Your task to perform on an android device: see creations saved in the google photos Image 0: 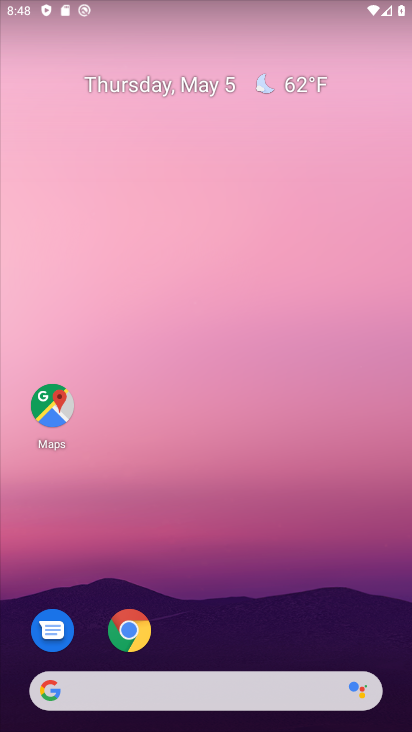
Step 0: drag from (207, 650) to (206, 3)
Your task to perform on an android device: see creations saved in the google photos Image 1: 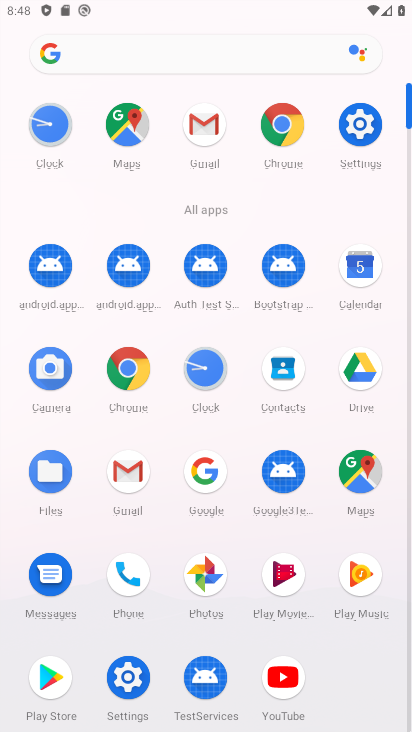
Step 1: click (203, 567)
Your task to perform on an android device: see creations saved in the google photos Image 2: 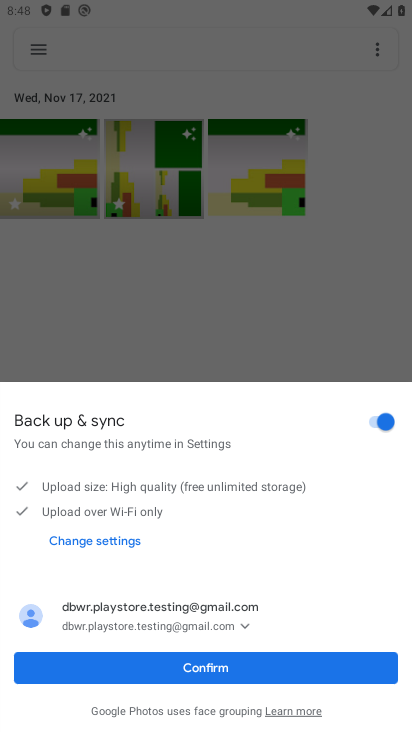
Step 2: click (215, 675)
Your task to perform on an android device: see creations saved in the google photos Image 3: 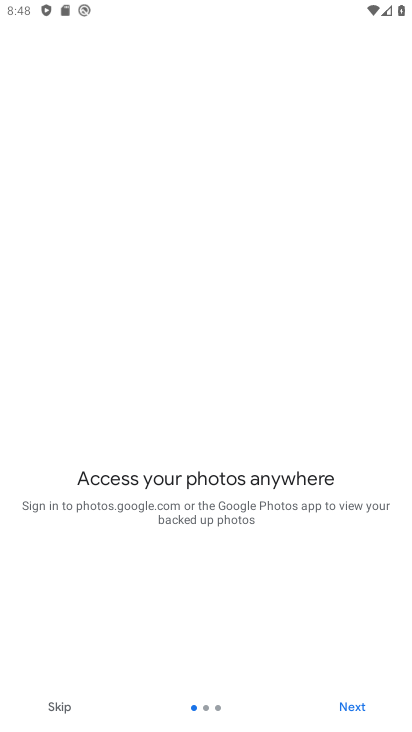
Step 3: click (345, 707)
Your task to perform on an android device: see creations saved in the google photos Image 4: 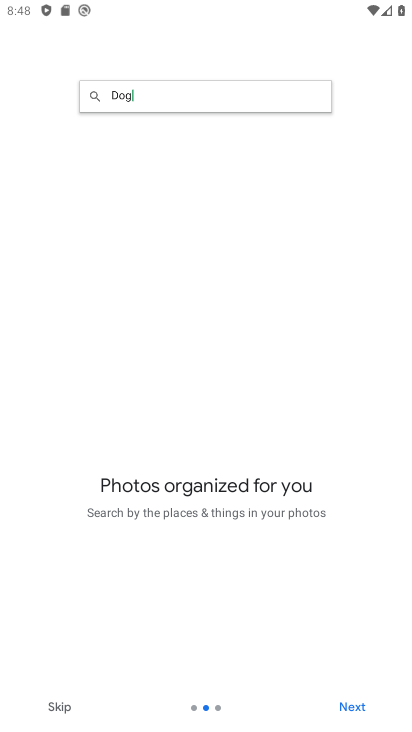
Step 4: click (353, 708)
Your task to perform on an android device: see creations saved in the google photos Image 5: 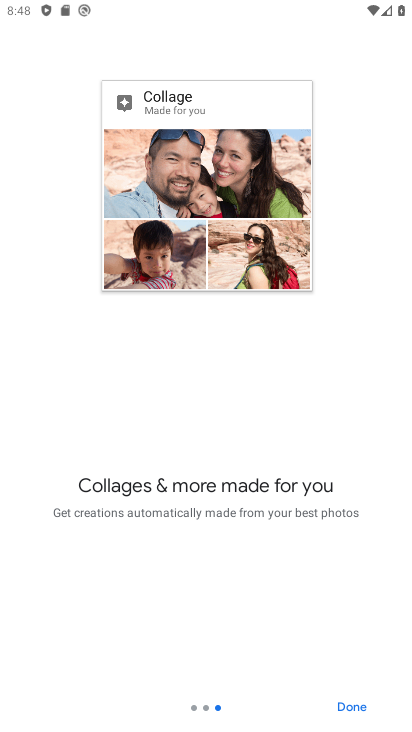
Step 5: click (350, 704)
Your task to perform on an android device: see creations saved in the google photos Image 6: 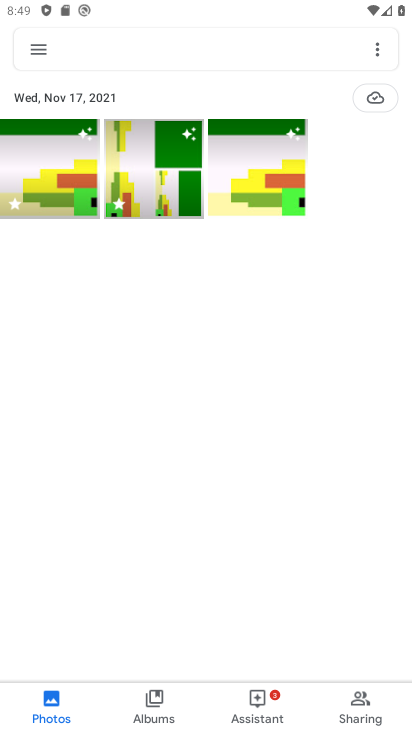
Step 6: click (91, 47)
Your task to perform on an android device: see creations saved in the google photos Image 7: 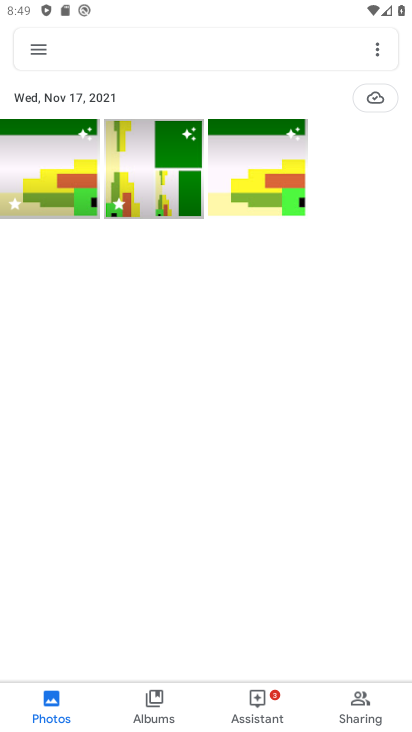
Step 7: click (111, 33)
Your task to perform on an android device: see creations saved in the google photos Image 8: 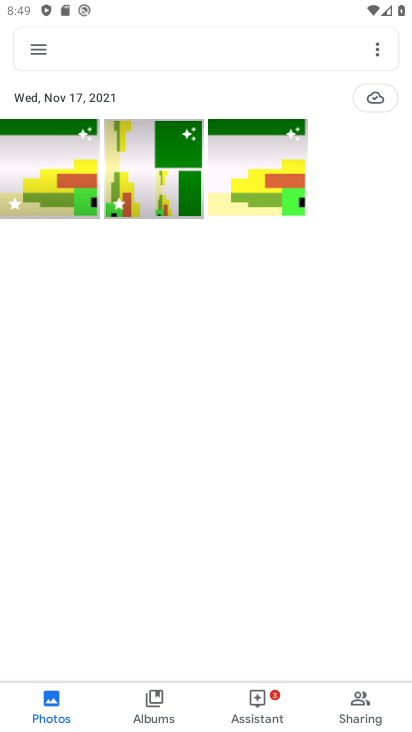
Step 8: click (141, 50)
Your task to perform on an android device: see creations saved in the google photos Image 9: 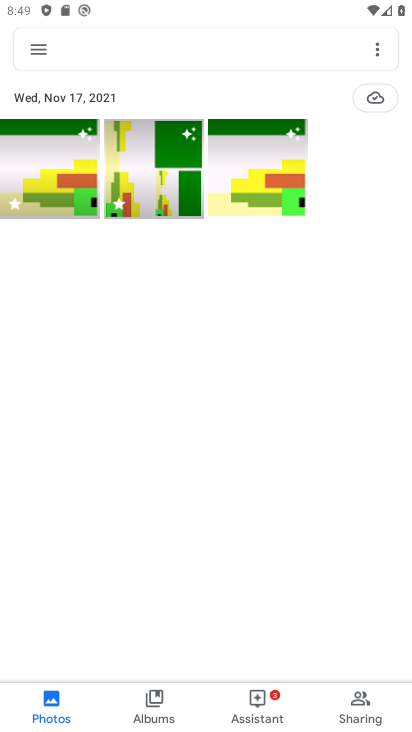
Step 9: click (93, 39)
Your task to perform on an android device: see creations saved in the google photos Image 10: 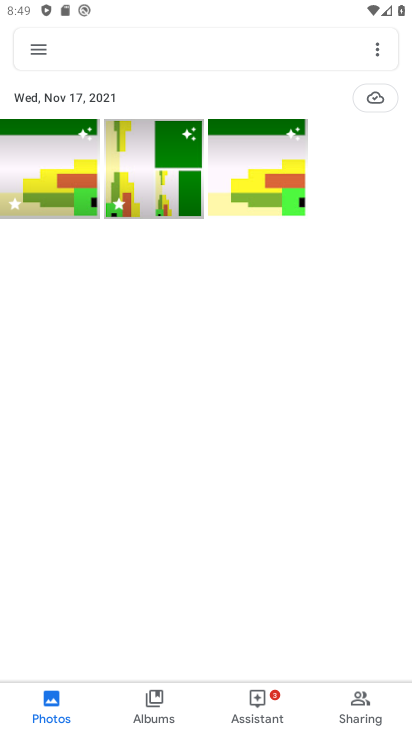
Step 10: click (94, 39)
Your task to perform on an android device: see creations saved in the google photos Image 11: 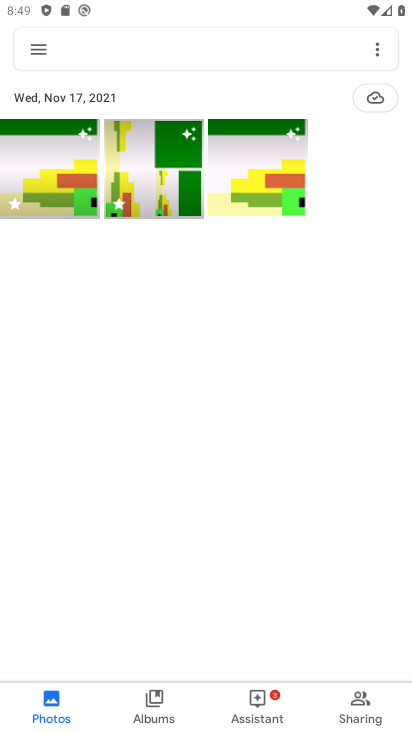
Step 11: click (158, 686)
Your task to perform on an android device: see creations saved in the google photos Image 12: 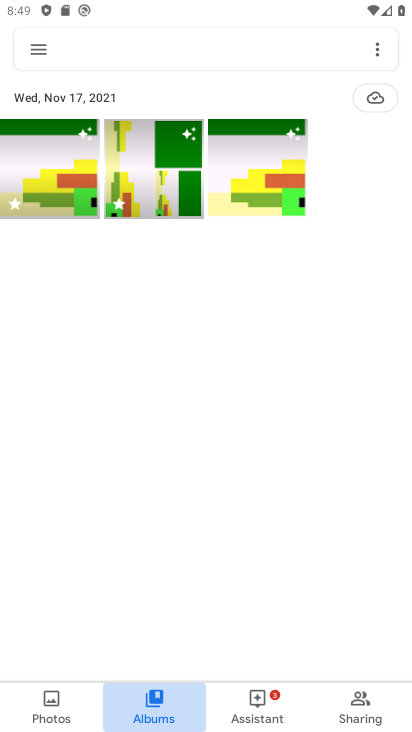
Step 12: click (159, 712)
Your task to perform on an android device: see creations saved in the google photos Image 13: 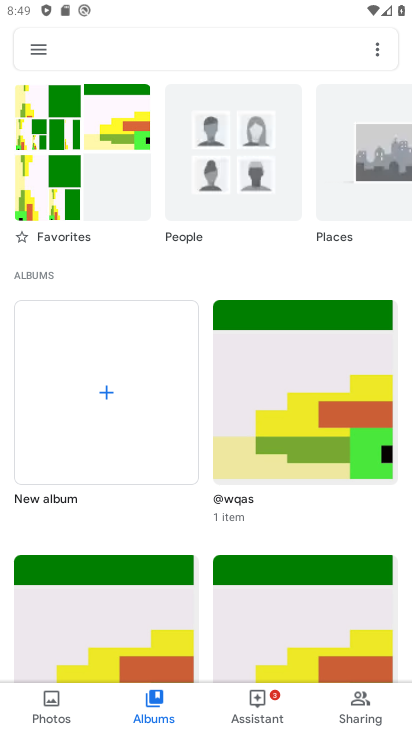
Step 13: click (110, 49)
Your task to perform on an android device: see creations saved in the google photos Image 14: 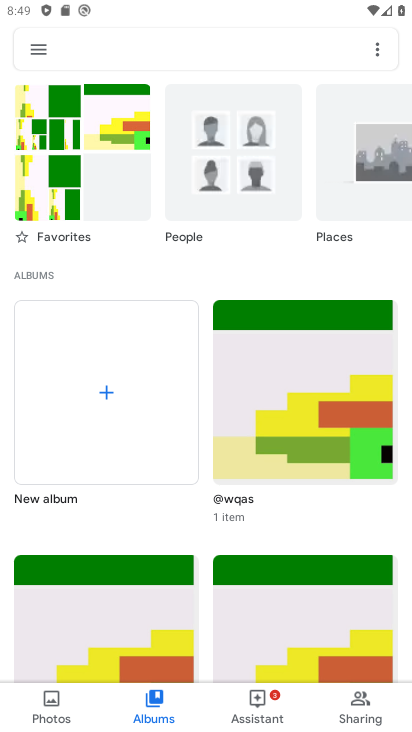
Step 14: click (35, 45)
Your task to perform on an android device: see creations saved in the google photos Image 15: 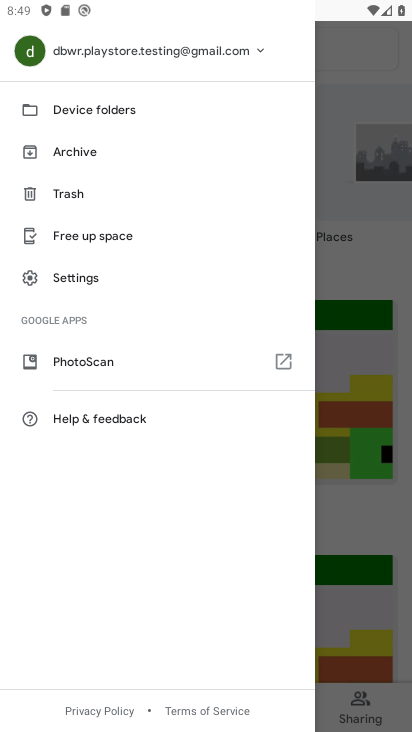
Step 15: click (354, 363)
Your task to perform on an android device: see creations saved in the google photos Image 16: 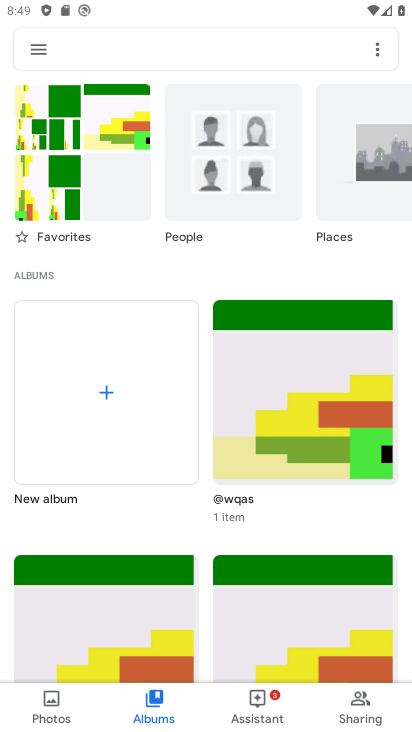
Step 16: drag from (153, 536) to (145, 55)
Your task to perform on an android device: see creations saved in the google photos Image 17: 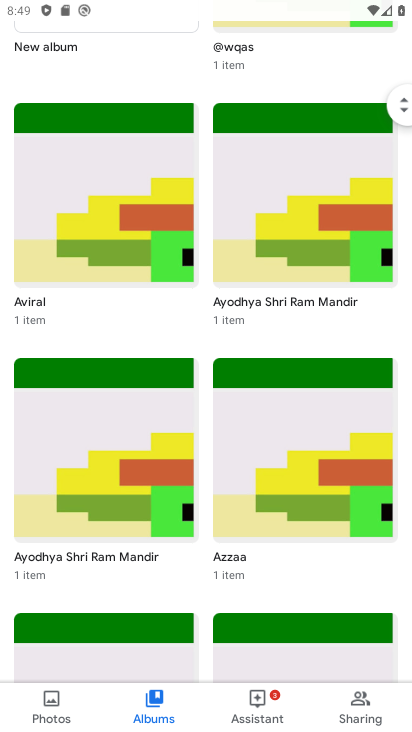
Step 17: drag from (170, 598) to (184, 9)
Your task to perform on an android device: see creations saved in the google photos Image 18: 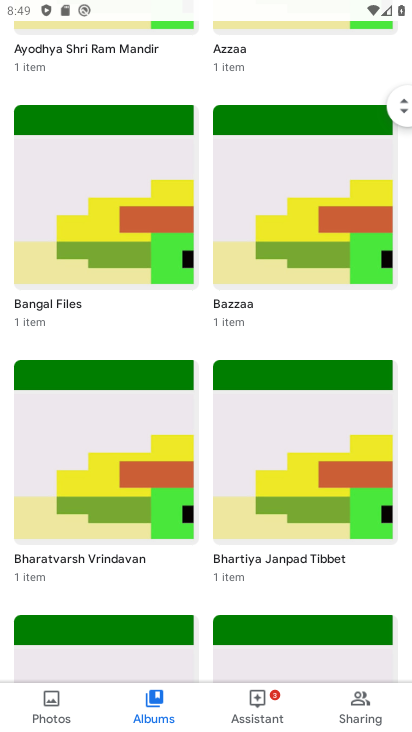
Step 18: drag from (183, 584) to (213, 4)
Your task to perform on an android device: see creations saved in the google photos Image 19: 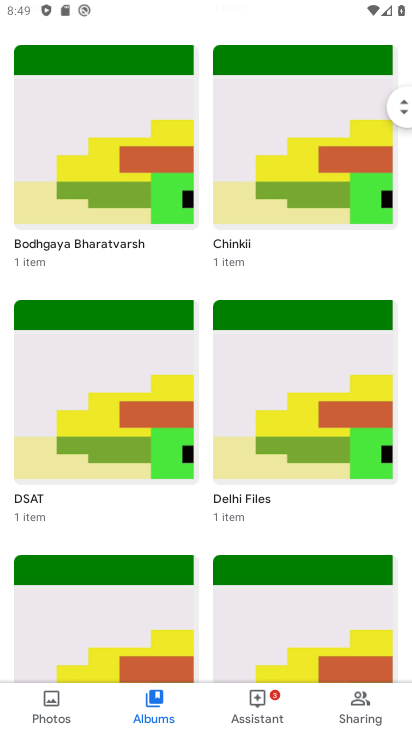
Step 19: drag from (195, 568) to (202, 5)
Your task to perform on an android device: see creations saved in the google photos Image 20: 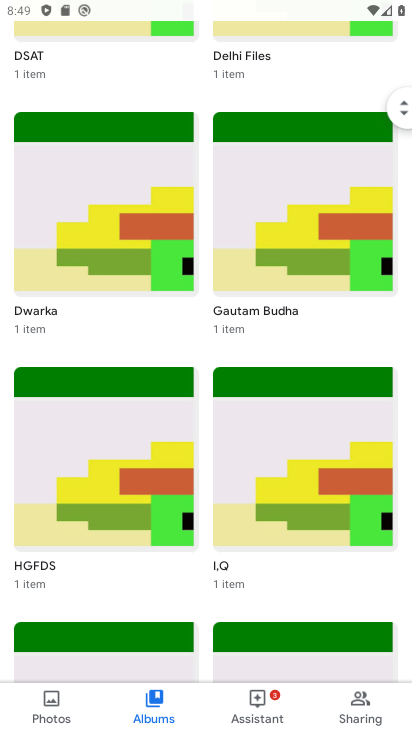
Step 20: drag from (202, 615) to (206, 185)
Your task to perform on an android device: see creations saved in the google photos Image 21: 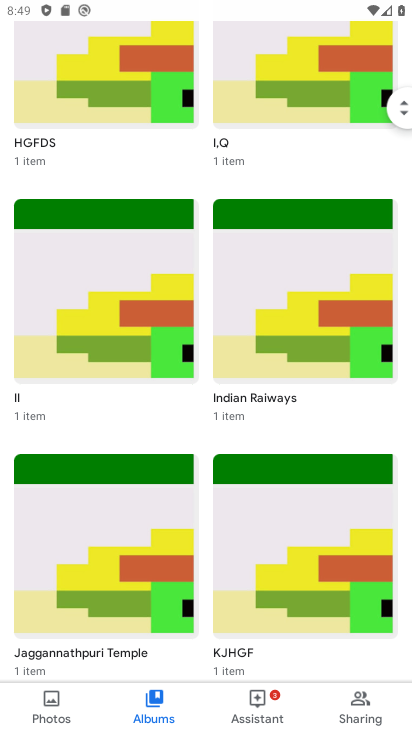
Step 21: drag from (211, 598) to (207, 67)
Your task to perform on an android device: see creations saved in the google photos Image 22: 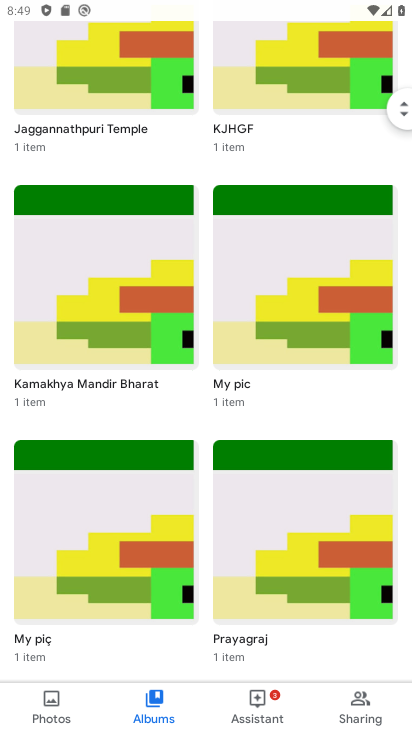
Step 22: click (254, 716)
Your task to perform on an android device: see creations saved in the google photos Image 23: 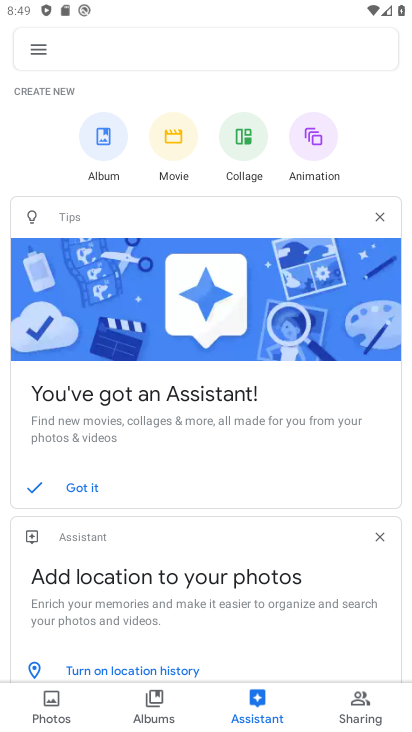
Step 23: drag from (211, 534) to (198, 69)
Your task to perform on an android device: see creations saved in the google photos Image 24: 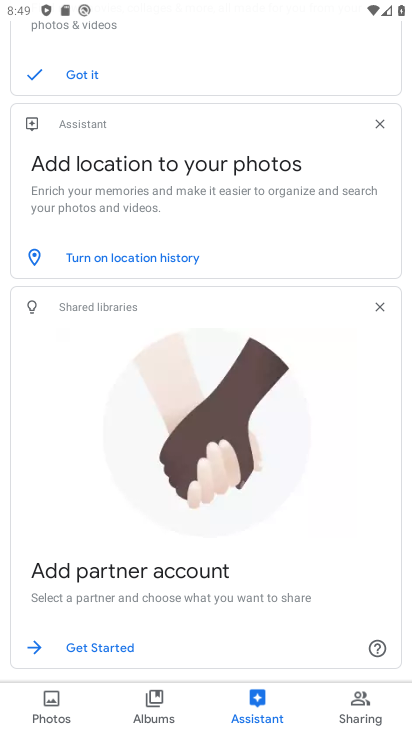
Step 24: drag from (151, 527) to (182, 0)
Your task to perform on an android device: see creations saved in the google photos Image 25: 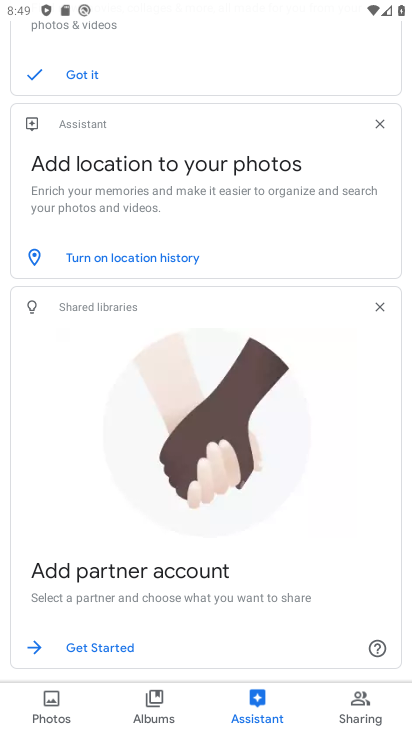
Step 25: drag from (167, 204) to (218, 610)
Your task to perform on an android device: see creations saved in the google photos Image 26: 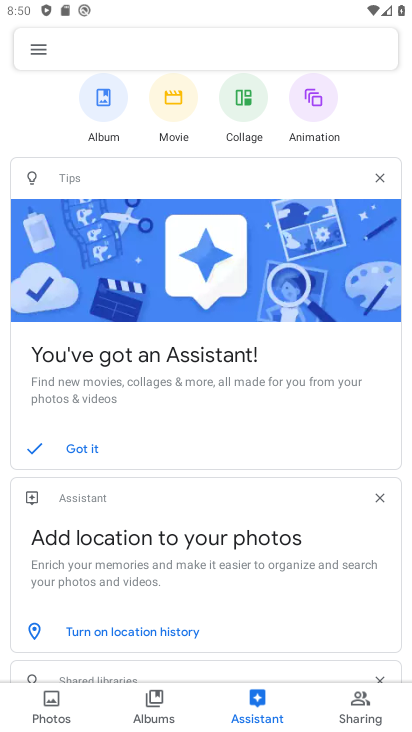
Step 26: drag from (110, 208) to (190, 616)
Your task to perform on an android device: see creations saved in the google photos Image 27: 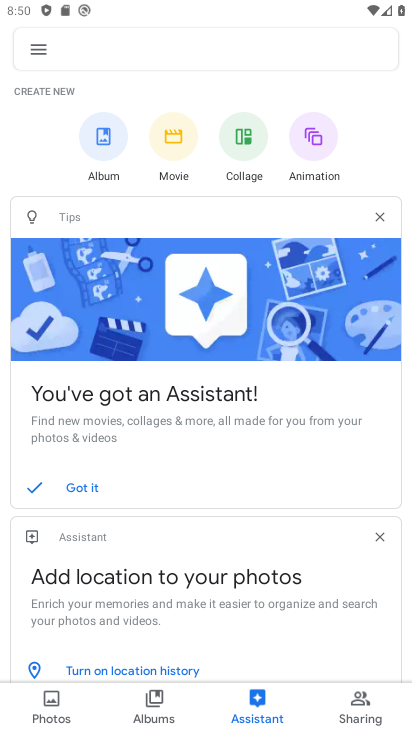
Step 27: click (95, 47)
Your task to perform on an android device: see creations saved in the google photos Image 28: 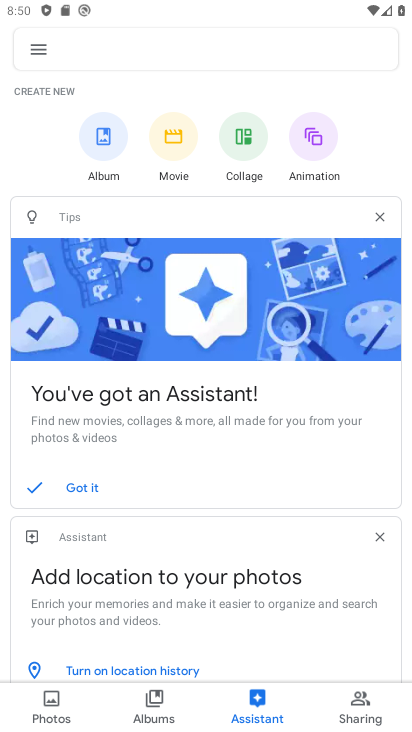
Step 28: click (353, 699)
Your task to perform on an android device: see creations saved in the google photos Image 29: 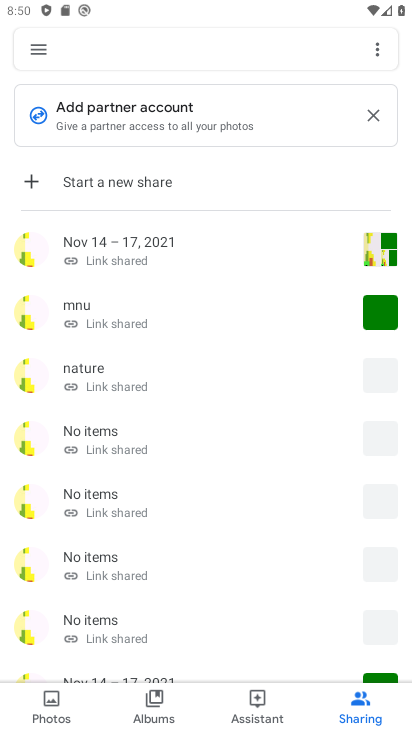
Step 29: click (148, 114)
Your task to perform on an android device: see creations saved in the google photos Image 30: 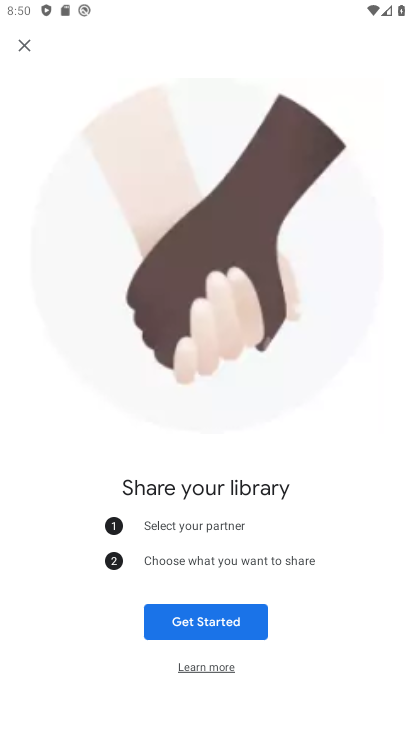
Step 30: click (23, 42)
Your task to perform on an android device: see creations saved in the google photos Image 31: 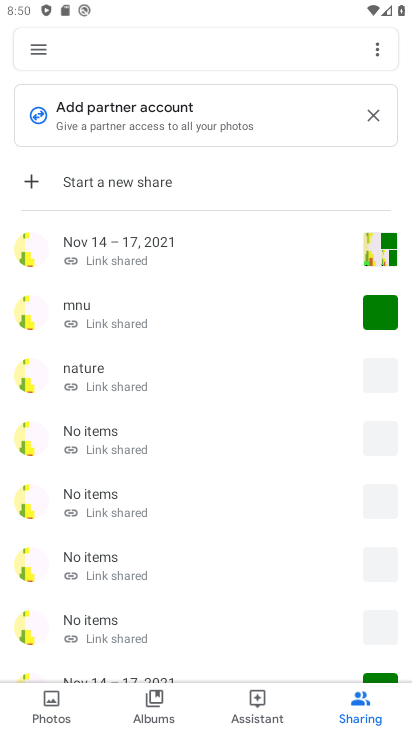
Step 31: click (117, 42)
Your task to perform on an android device: see creations saved in the google photos Image 32: 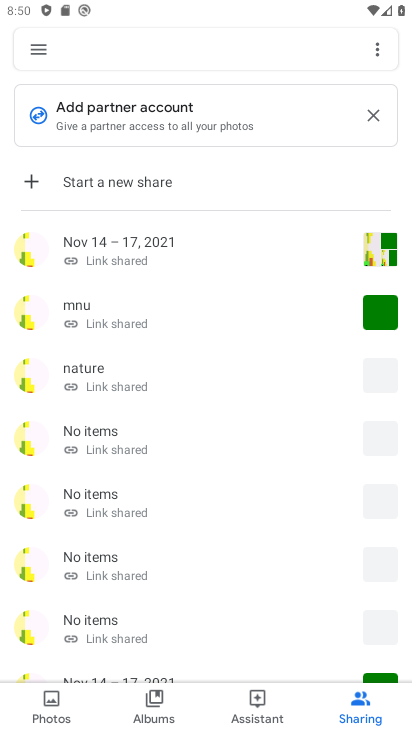
Step 32: click (140, 51)
Your task to perform on an android device: see creations saved in the google photos Image 33: 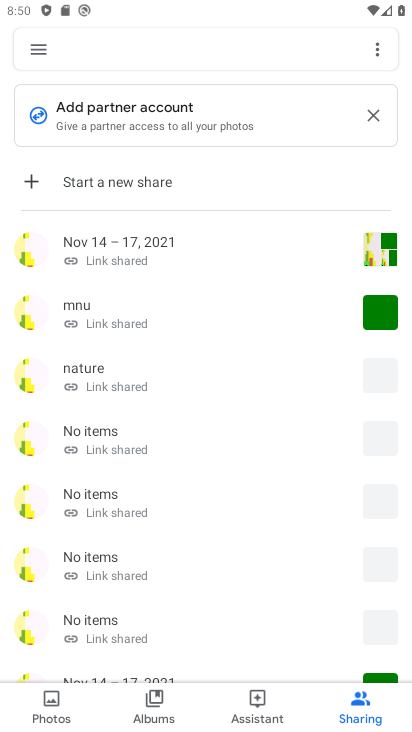
Step 33: drag from (138, 641) to (132, 46)
Your task to perform on an android device: see creations saved in the google photos Image 34: 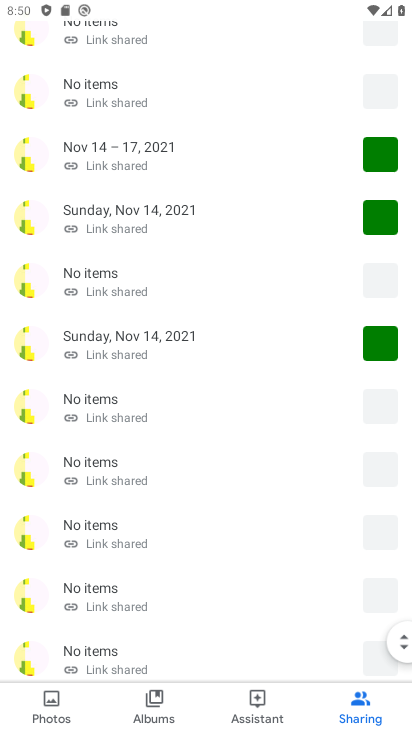
Step 34: drag from (168, 625) to (198, 2)
Your task to perform on an android device: see creations saved in the google photos Image 35: 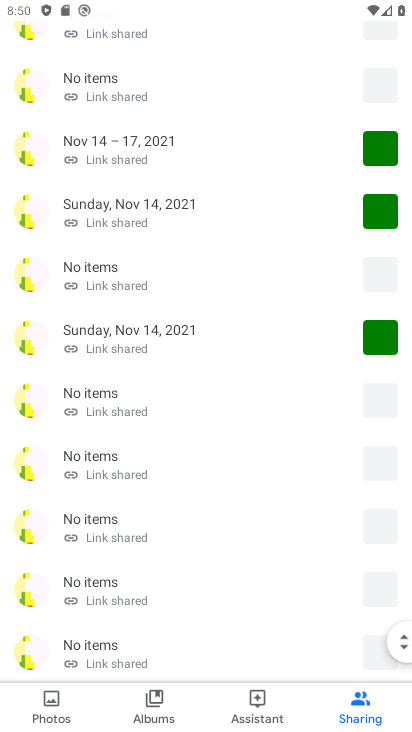
Step 35: click (147, 712)
Your task to perform on an android device: see creations saved in the google photos Image 36: 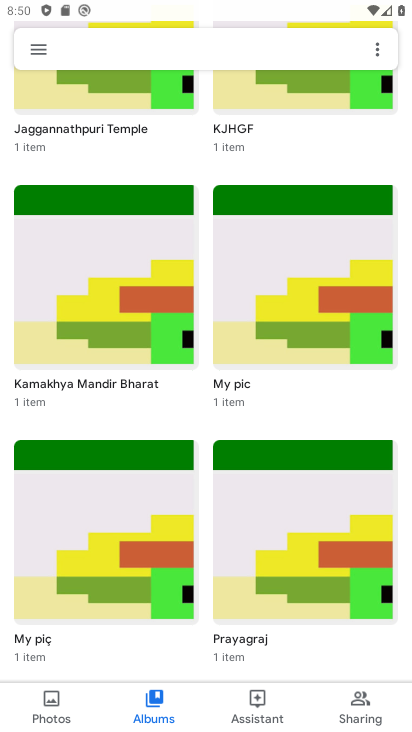
Step 36: click (56, 707)
Your task to perform on an android device: see creations saved in the google photos Image 37: 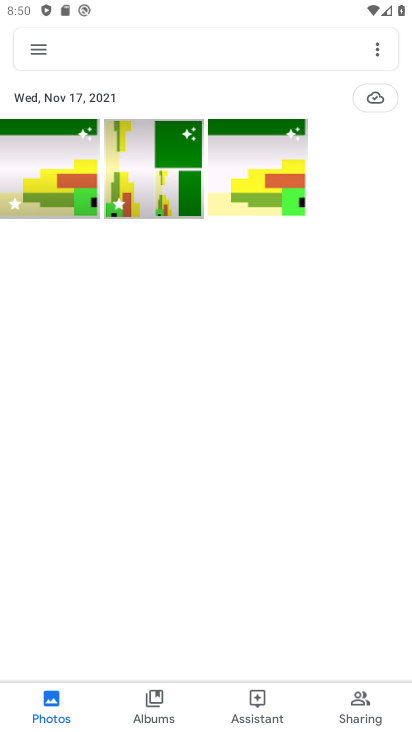
Step 37: click (33, 41)
Your task to perform on an android device: see creations saved in the google photos Image 38: 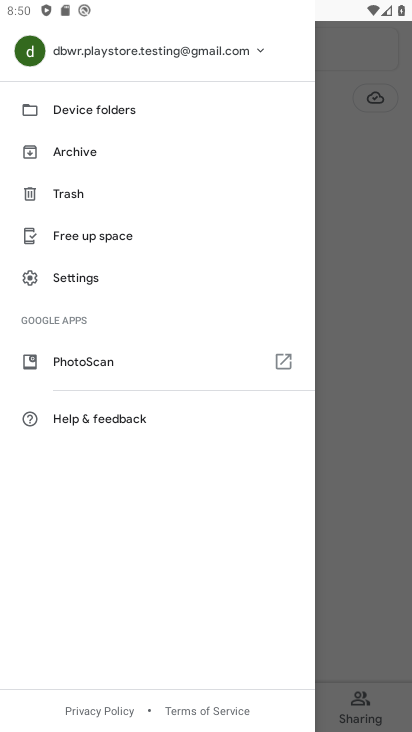
Step 38: click (339, 399)
Your task to perform on an android device: see creations saved in the google photos Image 39: 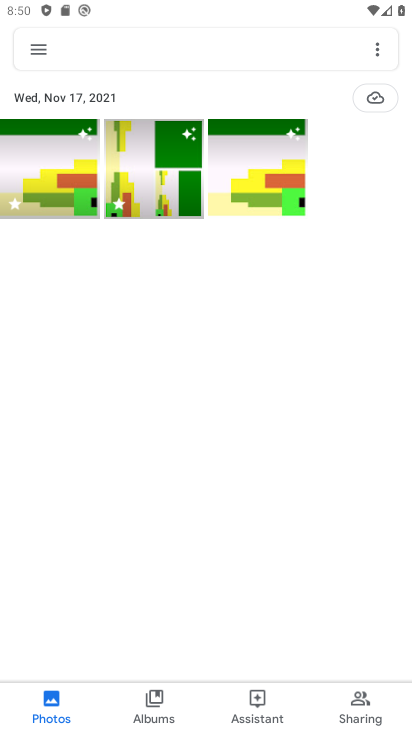
Step 39: click (106, 53)
Your task to perform on an android device: see creations saved in the google photos Image 40: 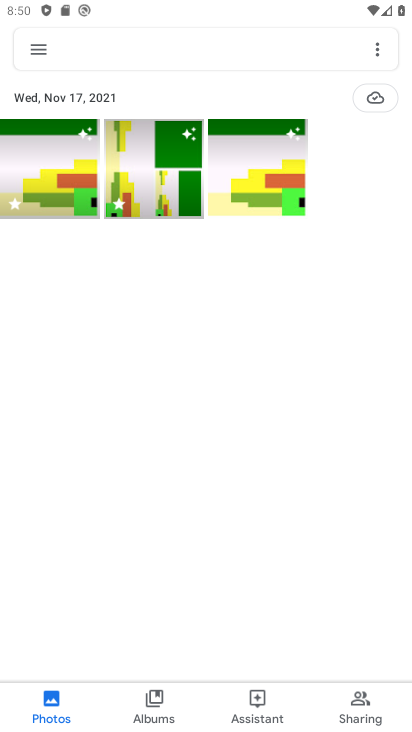
Step 40: click (123, 48)
Your task to perform on an android device: see creations saved in the google photos Image 41: 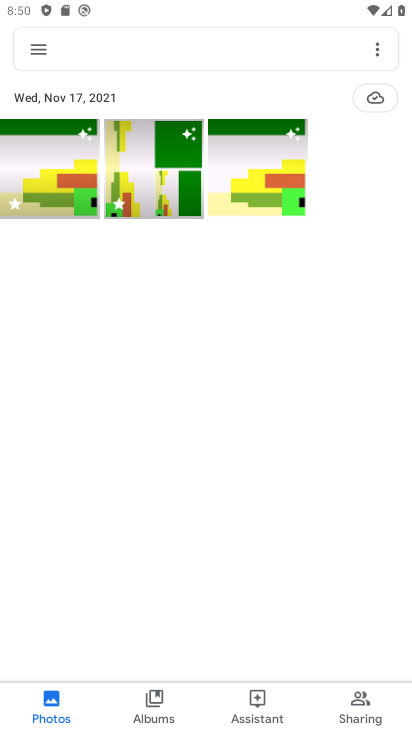
Step 41: click (123, 48)
Your task to perform on an android device: see creations saved in the google photos Image 42: 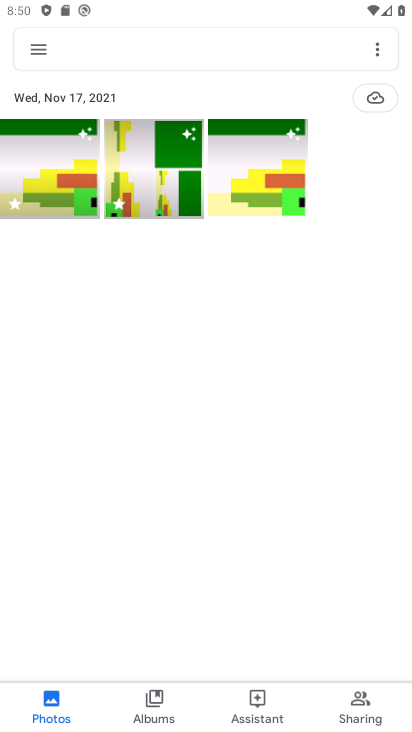
Step 42: click (147, 51)
Your task to perform on an android device: see creations saved in the google photos Image 43: 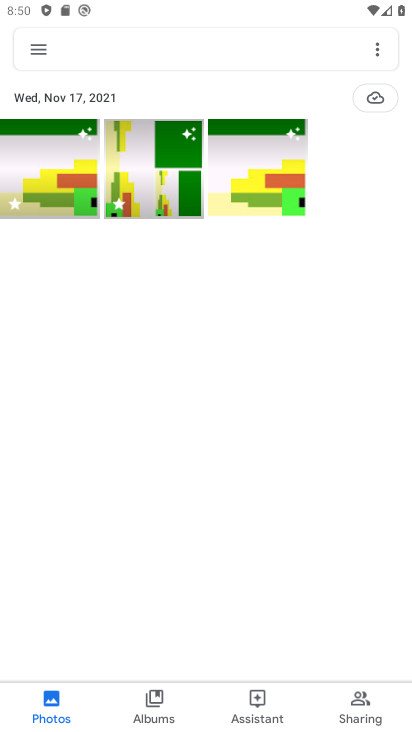
Step 43: click (373, 50)
Your task to perform on an android device: see creations saved in the google photos Image 44: 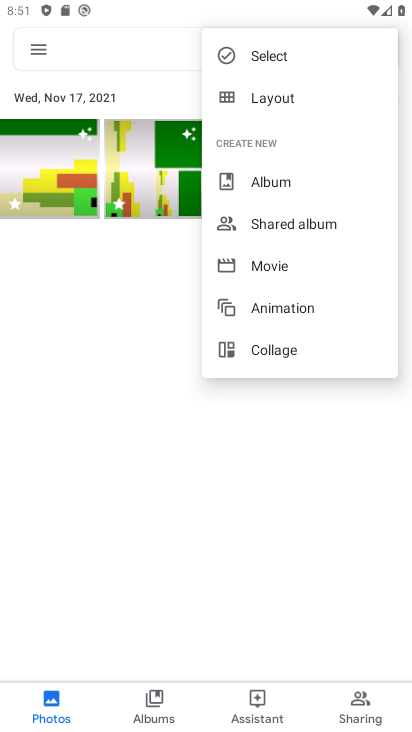
Step 44: task complete